Your task to perform on an android device: Show me recent news Image 0: 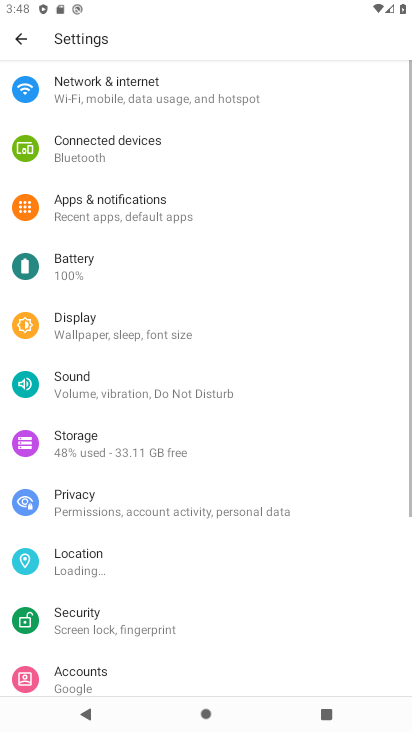
Step 0: press home button
Your task to perform on an android device: Show me recent news Image 1: 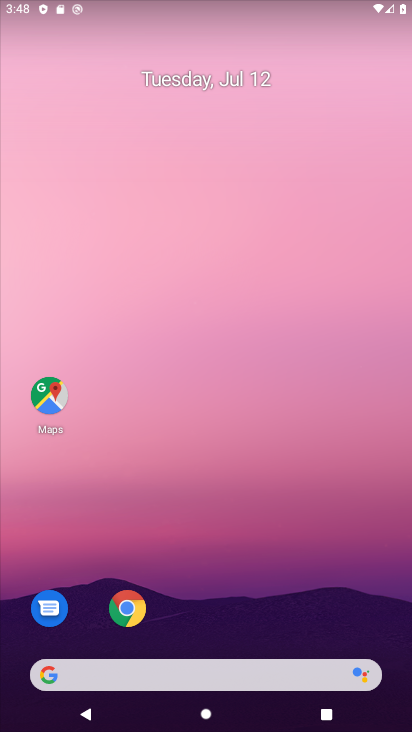
Step 1: task complete